Your task to perform on an android device: turn notification dots off Image 0: 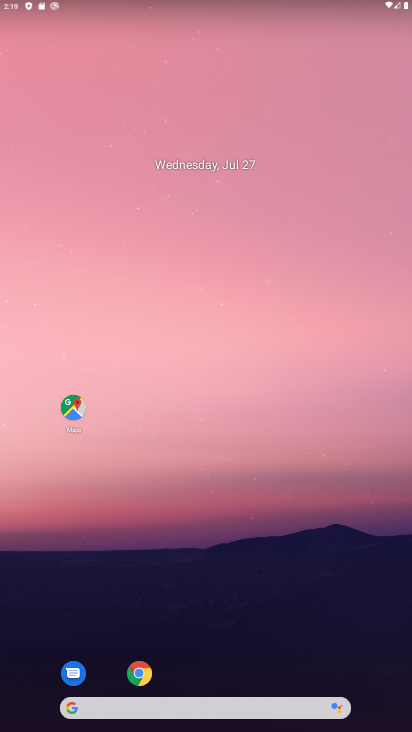
Step 0: drag from (241, 637) to (290, 110)
Your task to perform on an android device: turn notification dots off Image 1: 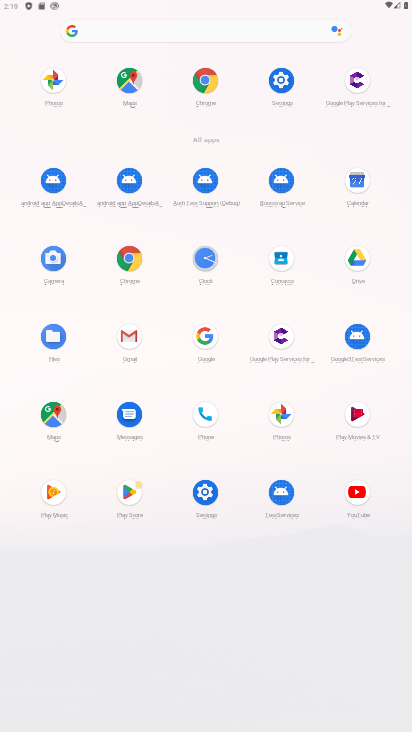
Step 1: click (279, 90)
Your task to perform on an android device: turn notification dots off Image 2: 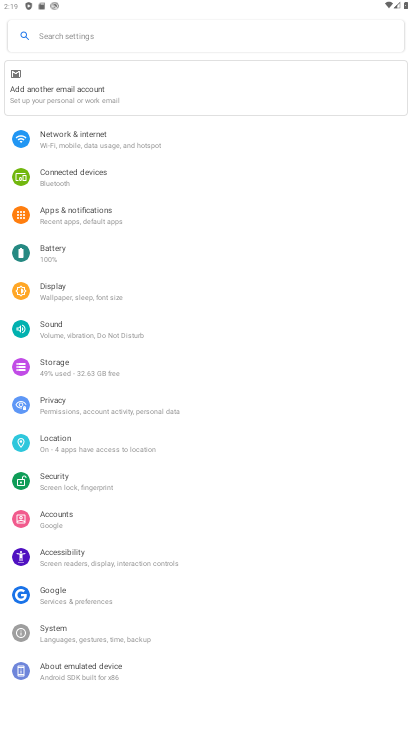
Step 2: click (82, 218)
Your task to perform on an android device: turn notification dots off Image 3: 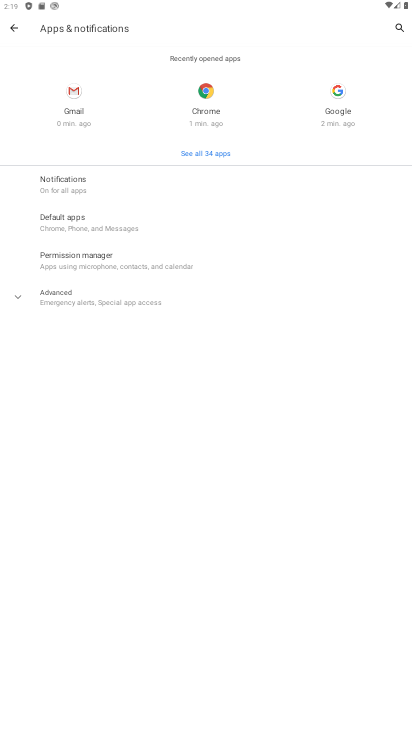
Step 3: click (72, 183)
Your task to perform on an android device: turn notification dots off Image 4: 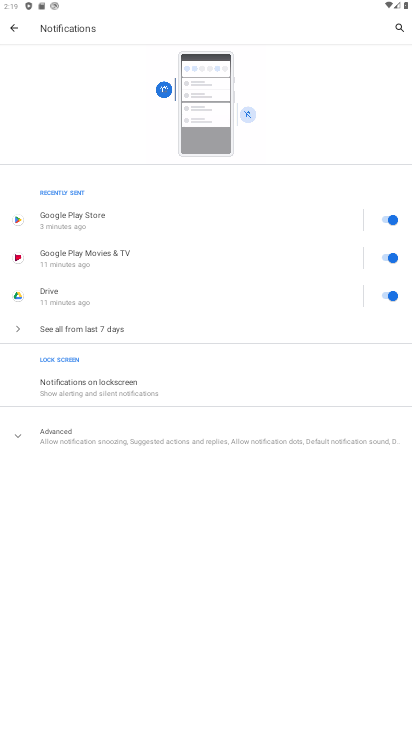
Step 4: click (64, 439)
Your task to perform on an android device: turn notification dots off Image 5: 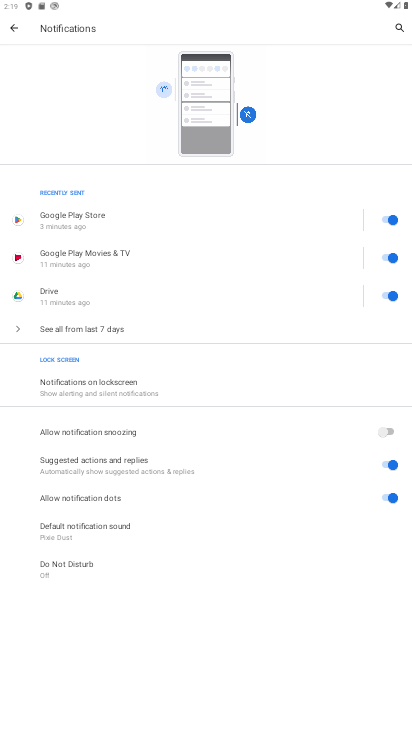
Step 5: click (394, 498)
Your task to perform on an android device: turn notification dots off Image 6: 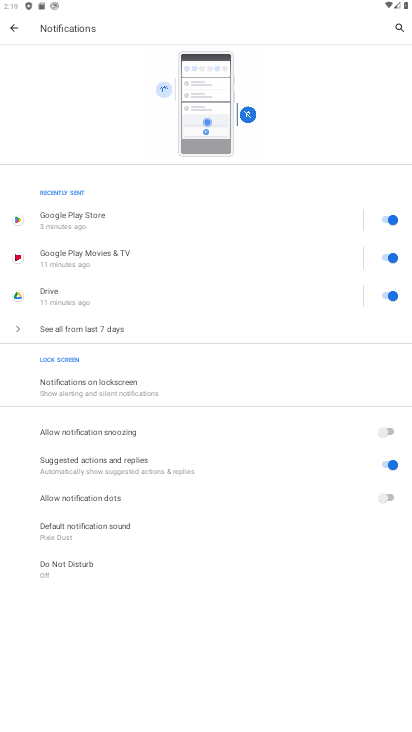
Step 6: task complete